Your task to perform on an android device: toggle translation in the chrome app Image 0: 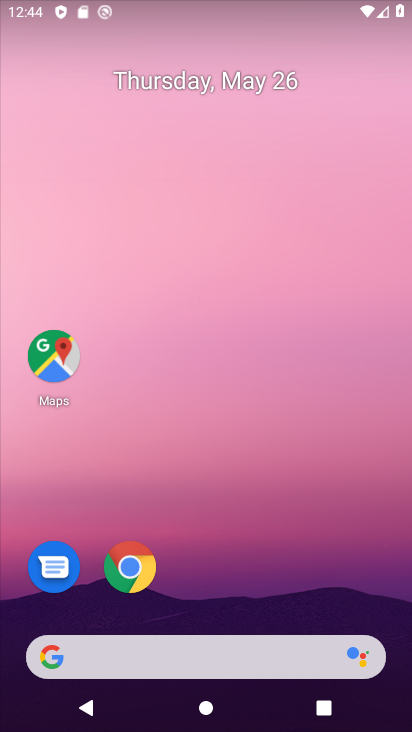
Step 0: click (135, 568)
Your task to perform on an android device: toggle translation in the chrome app Image 1: 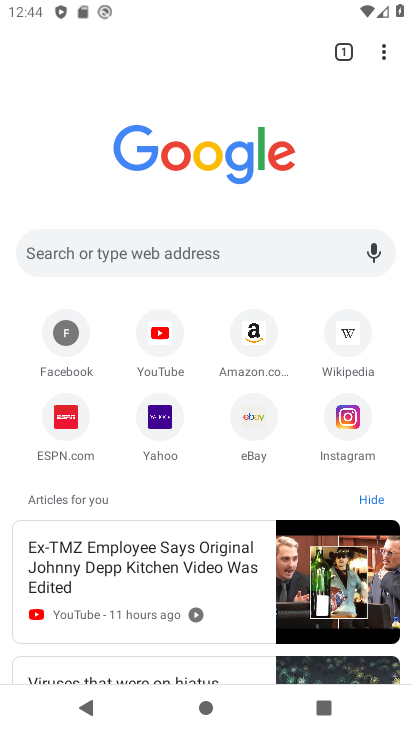
Step 1: click (379, 53)
Your task to perform on an android device: toggle translation in the chrome app Image 2: 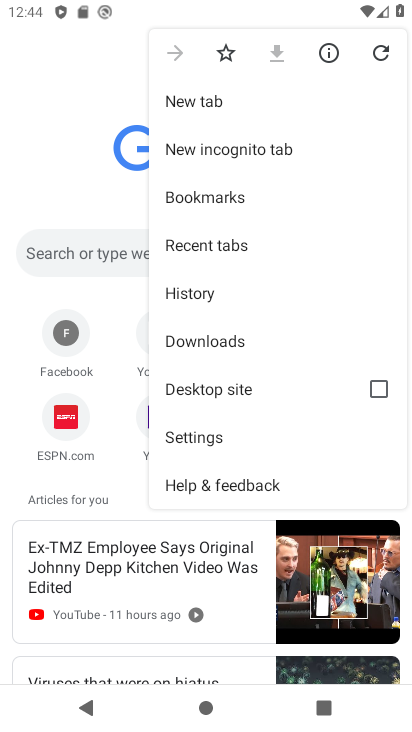
Step 2: click (202, 436)
Your task to perform on an android device: toggle translation in the chrome app Image 3: 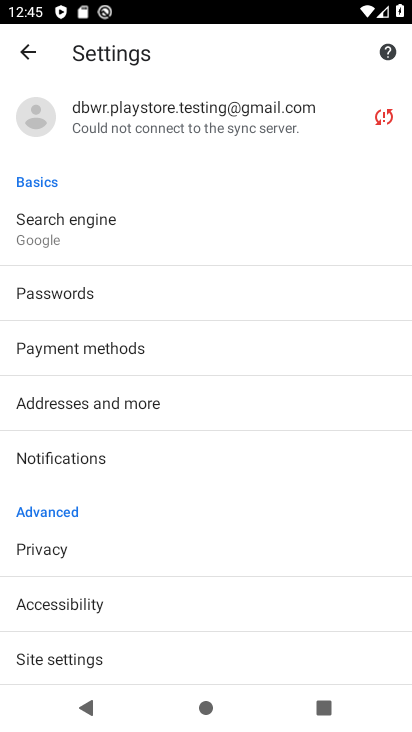
Step 3: drag from (197, 598) to (250, 198)
Your task to perform on an android device: toggle translation in the chrome app Image 4: 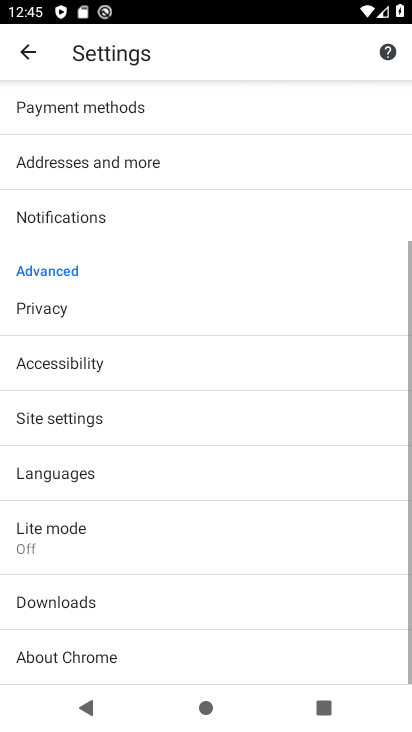
Step 4: click (83, 460)
Your task to perform on an android device: toggle translation in the chrome app Image 5: 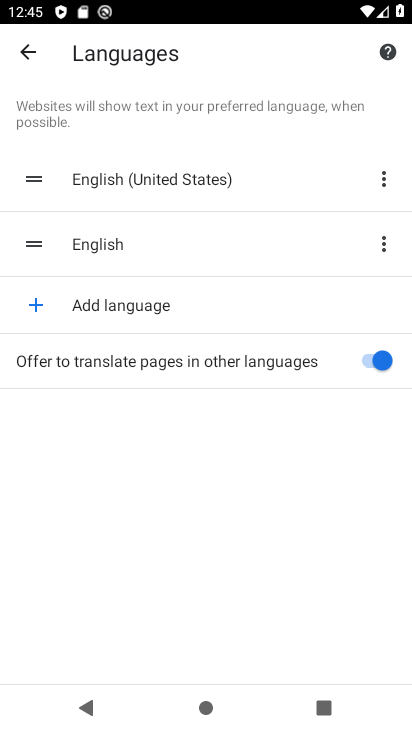
Step 5: click (379, 356)
Your task to perform on an android device: toggle translation in the chrome app Image 6: 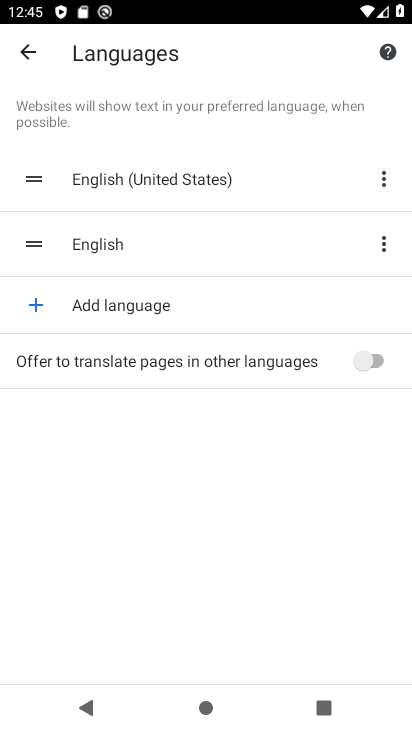
Step 6: task complete